Your task to perform on an android device: Open Android settings Image 0: 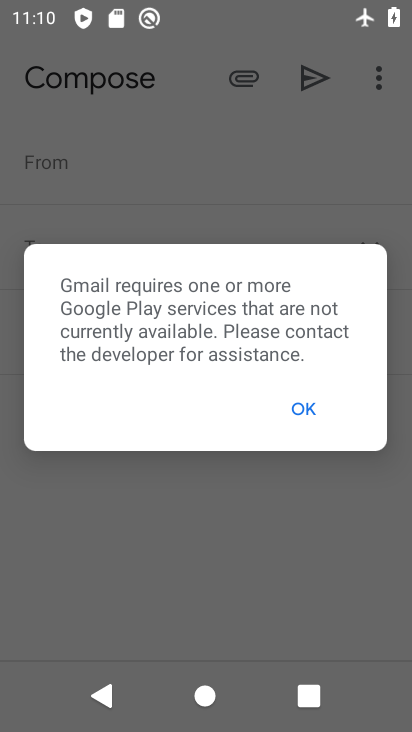
Step 0: press home button
Your task to perform on an android device: Open Android settings Image 1: 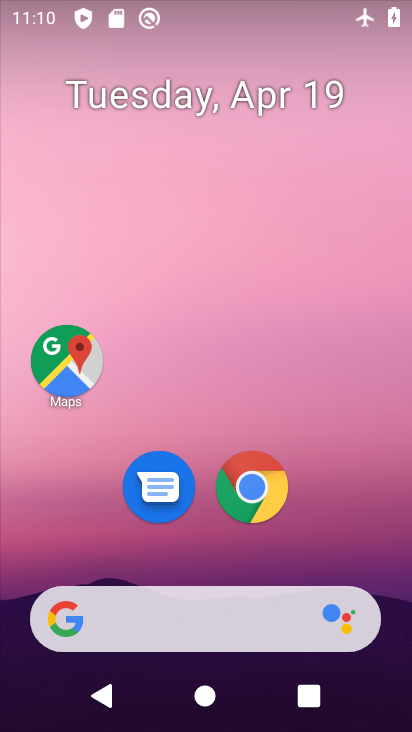
Step 1: drag from (367, 565) to (253, 33)
Your task to perform on an android device: Open Android settings Image 2: 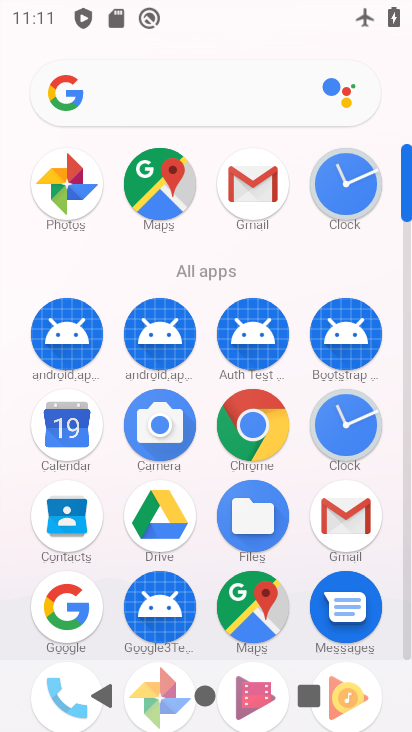
Step 2: click (406, 660)
Your task to perform on an android device: Open Android settings Image 3: 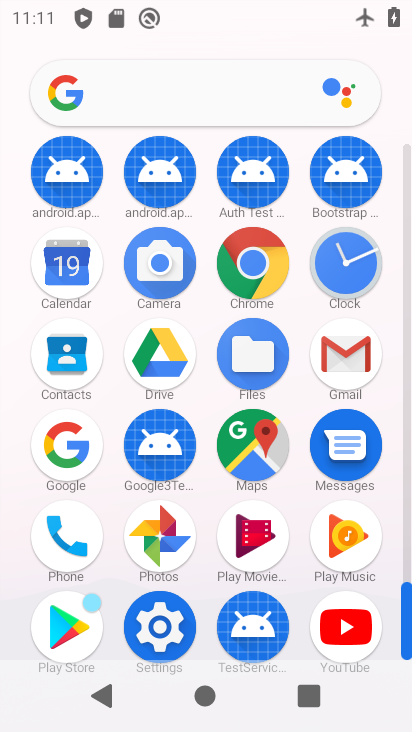
Step 3: click (146, 623)
Your task to perform on an android device: Open Android settings Image 4: 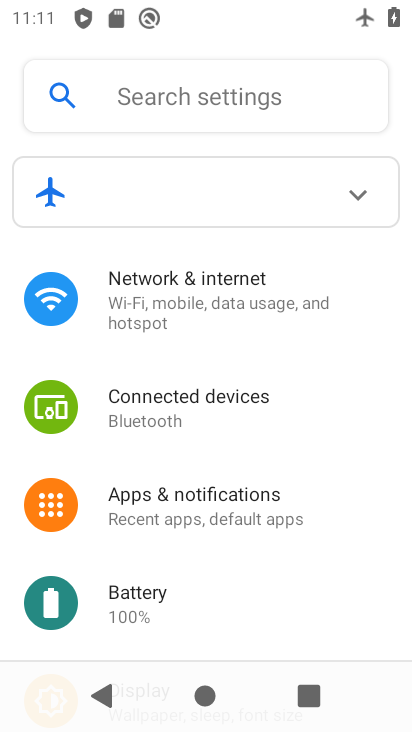
Step 4: drag from (217, 598) to (260, 57)
Your task to perform on an android device: Open Android settings Image 5: 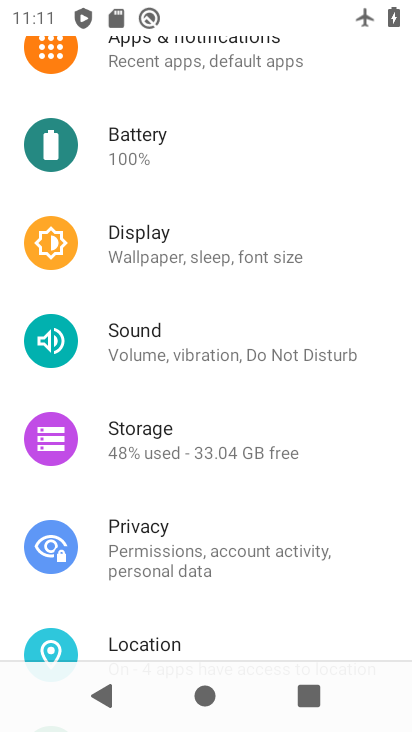
Step 5: drag from (162, 582) to (257, 83)
Your task to perform on an android device: Open Android settings Image 6: 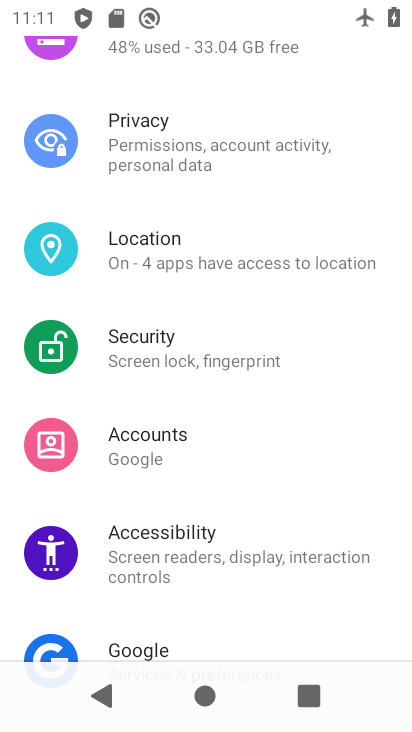
Step 6: drag from (131, 563) to (287, 83)
Your task to perform on an android device: Open Android settings Image 7: 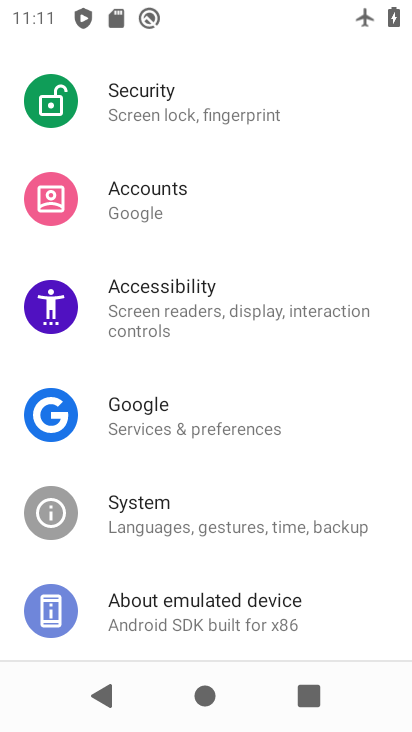
Step 7: click (184, 602)
Your task to perform on an android device: Open Android settings Image 8: 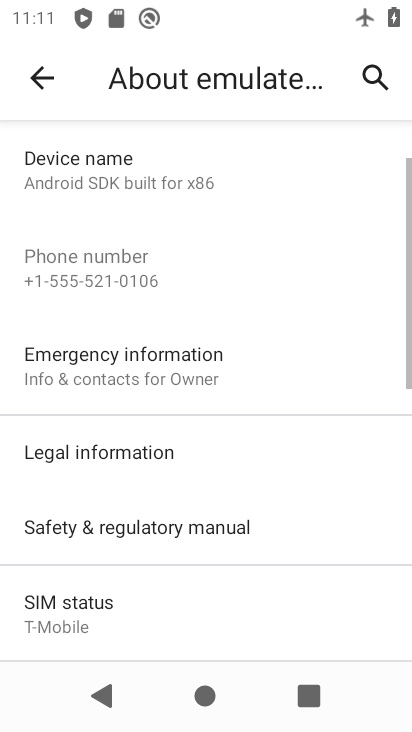
Step 8: drag from (124, 593) to (175, 167)
Your task to perform on an android device: Open Android settings Image 9: 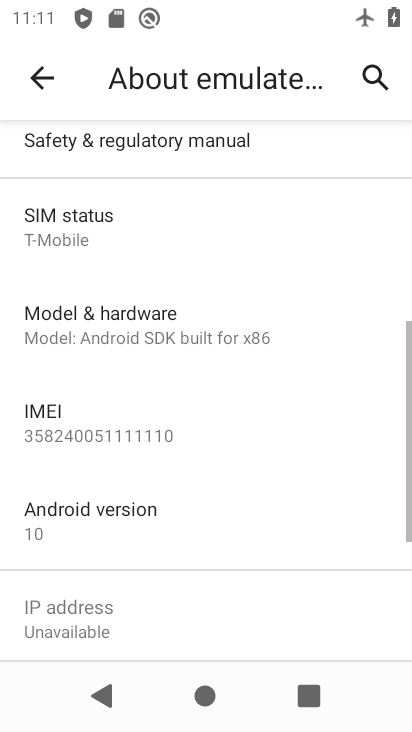
Step 9: click (104, 513)
Your task to perform on an android device: Open Android settings Image 10: 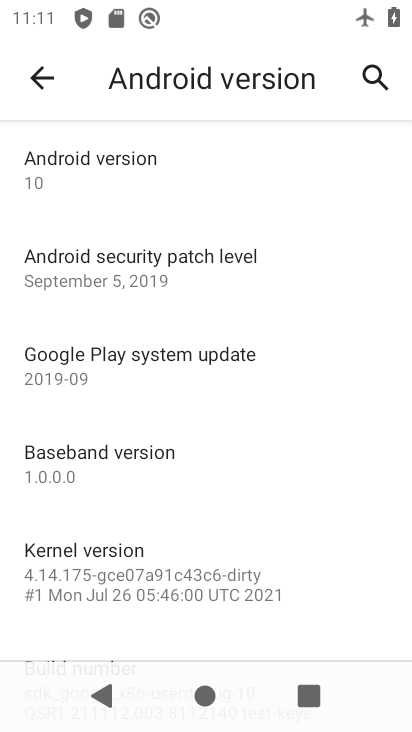
Step 10: task complete